Your task to perform on an android device: Search for sushi restaurants on Maps Image 0: 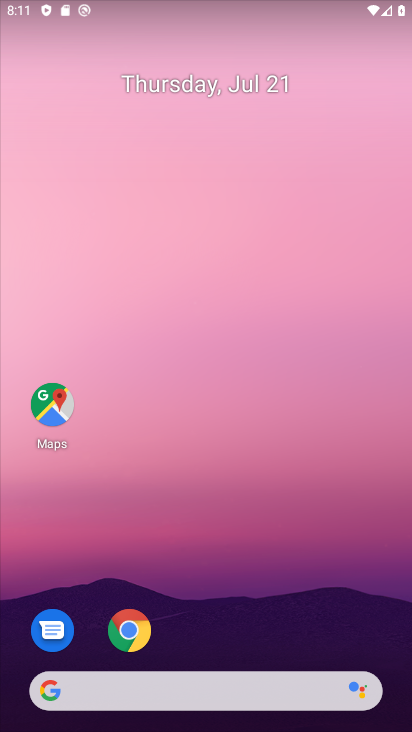
Step 0: click (56, 414)
Your task to perform on an android device: Search for sushi restaurants on Maps Image 1: 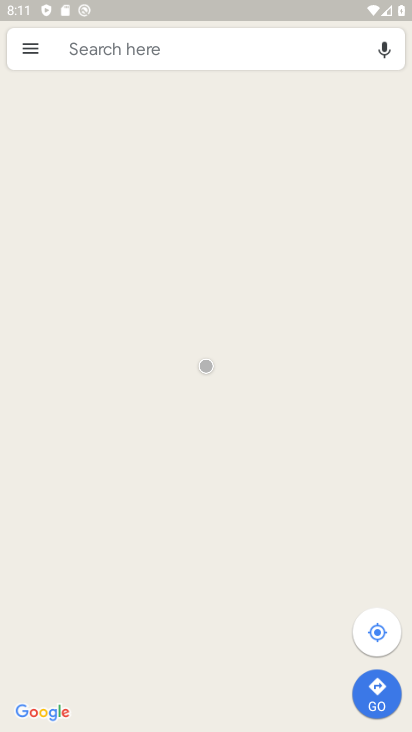
Step 1: click (204, 51)
Your task to perform on an android device: Search for sushi restaurants on Maps Image 2: 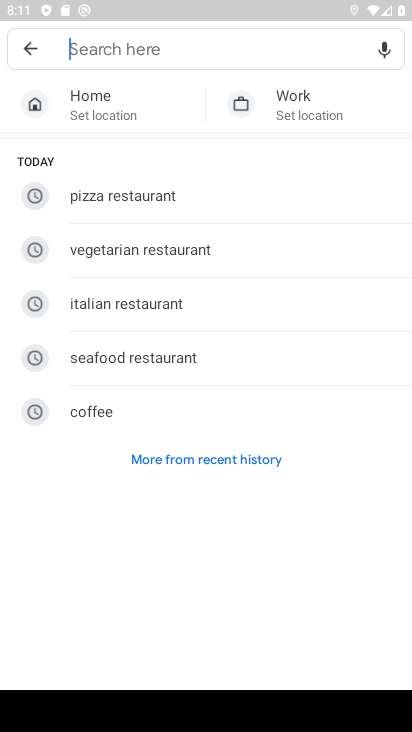
Step 2: type "sushi restaurants"
Your task to perform on an android device: Search for sushi restaurants on Maps Image 3: 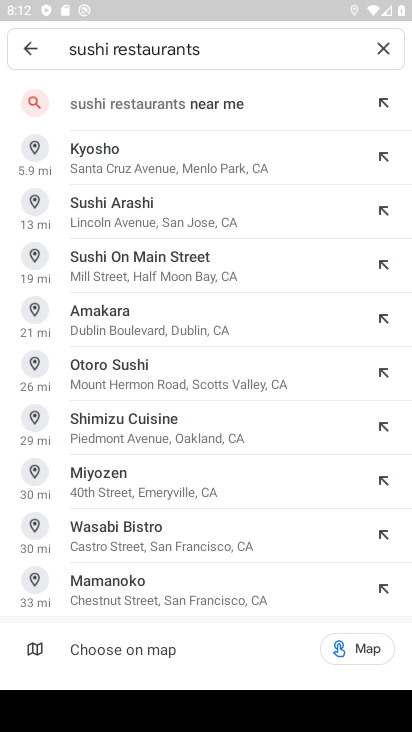
Step 3: click (196, 99)
Your task to perform on an android device: Search for sushi restaurants on Maps Image 4: 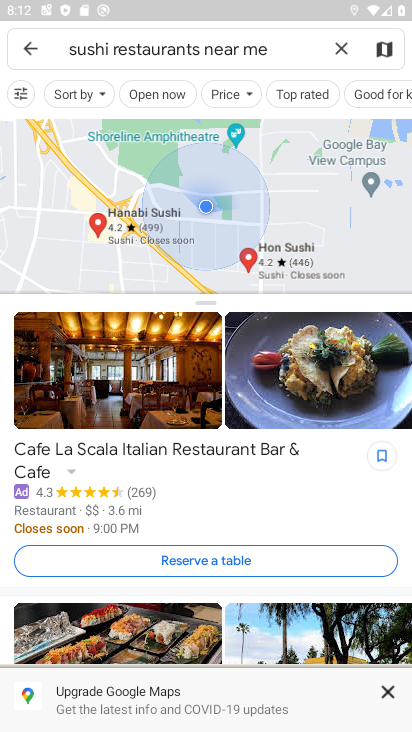
Step 4: task complete